Your task to perform on an android device: change notification settings in the gmail app Image 0: 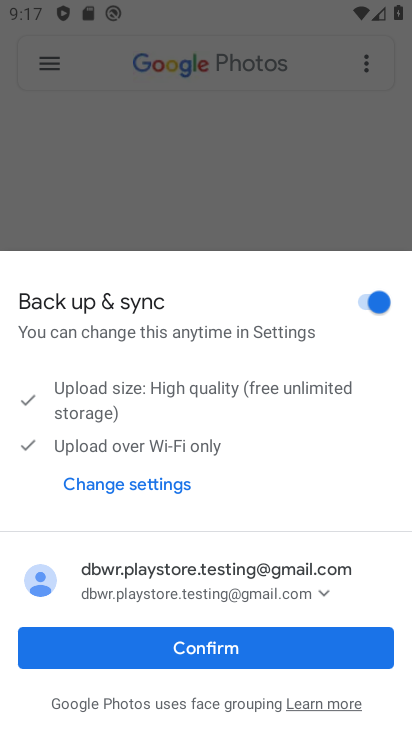
Step 0: press home button
Your task to perform on an android device: change notification settings in the gmail app Image 1: 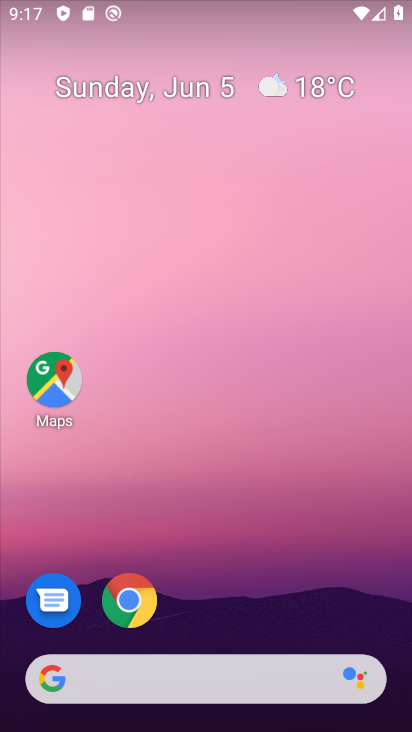
Step 1: drag from (296, 604) to (241, 128)
Your task to perform on an android device: change notification settings in the gmail app Image 2: 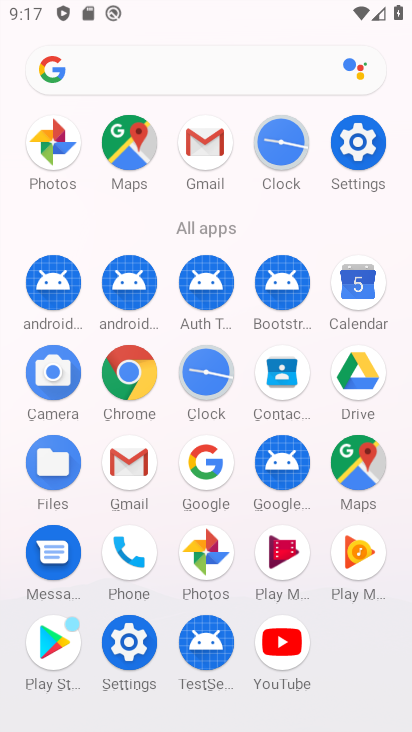
Step 2: click (209, 145)
Your task to perform on an android device: change notification settings in the gmail app Image 3: 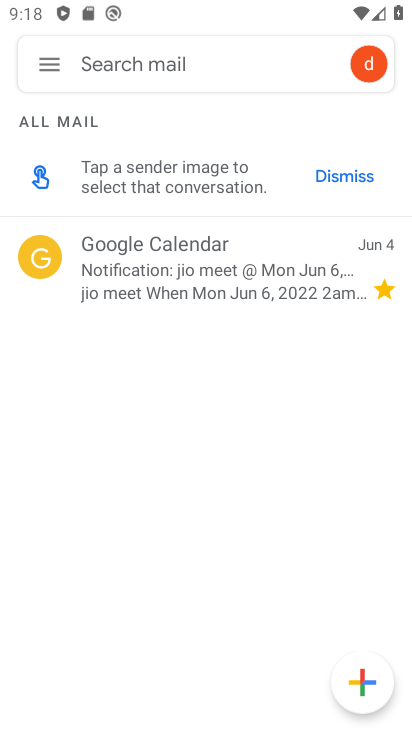
Step 3: click (31, 47)
Your task to perform on an android device: change notification settings in the gmail app Image 4: 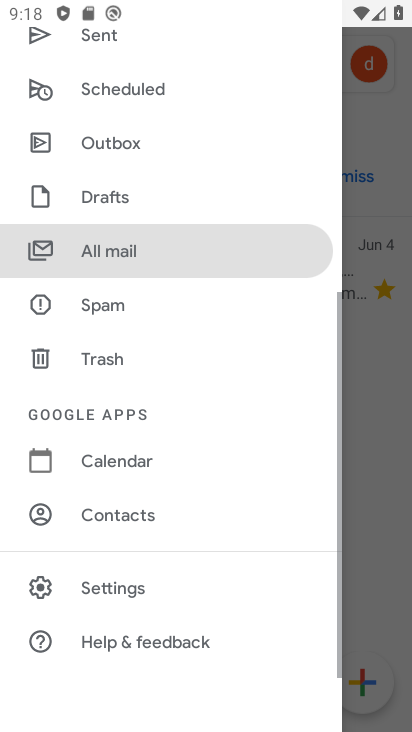
Step 4: click (161, 608)
Your task to perform on an android device: change notification settings in the gmail app Image 5: 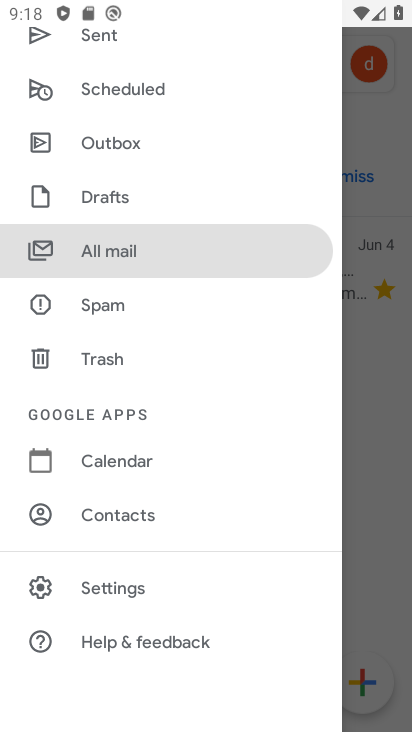
Step 5: click (128, 586)
Your task to perform on an android device: change notification settings in the gmail app Image 6: 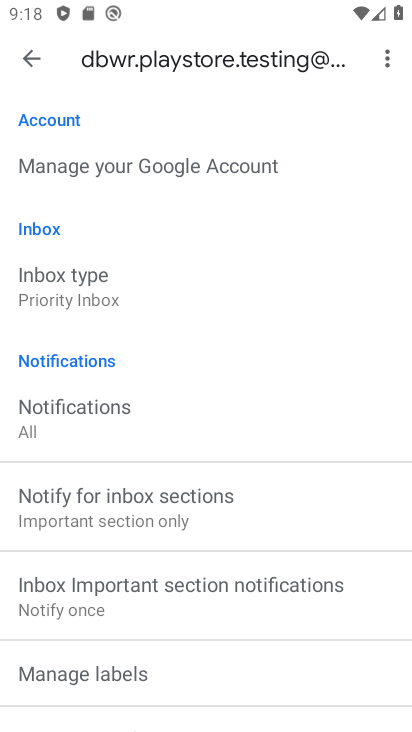
Step 6: drag from (221, 558) to (286, 104)
Your task to perform on an android device: change notification settings in the gmail app Image 7: 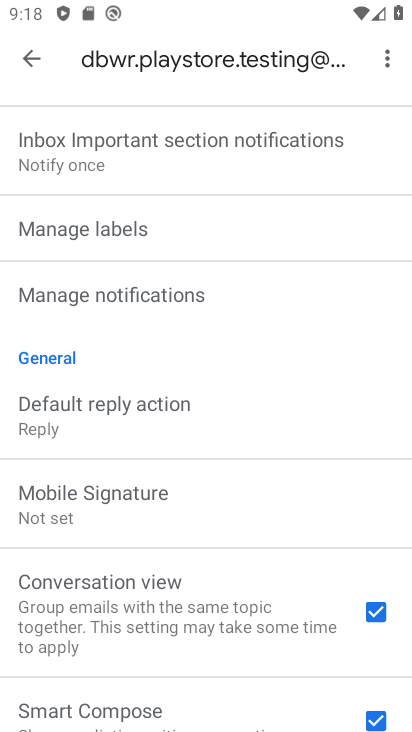
Step 7: click (171, 291)
Your task to perform on an android device: change notification settings in the gmail app Image 8: 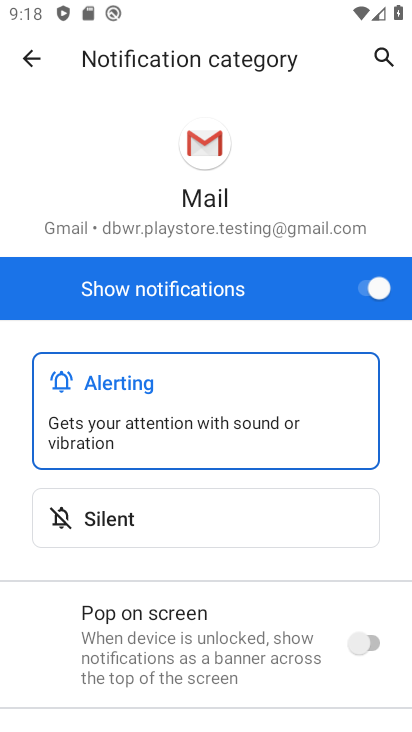
Step 8: click (386, 293)
Your task to perform on an android device: change notification settings in the gmail app Image 9: 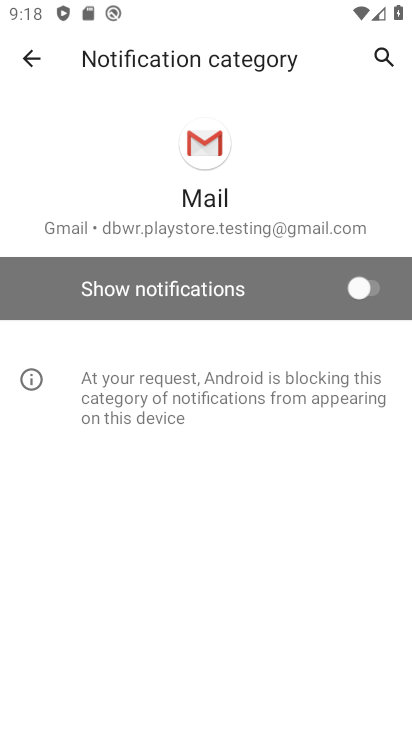
Step 9: task complete